Your task to perform on an android device: find which apps use the phone's location Image 0: 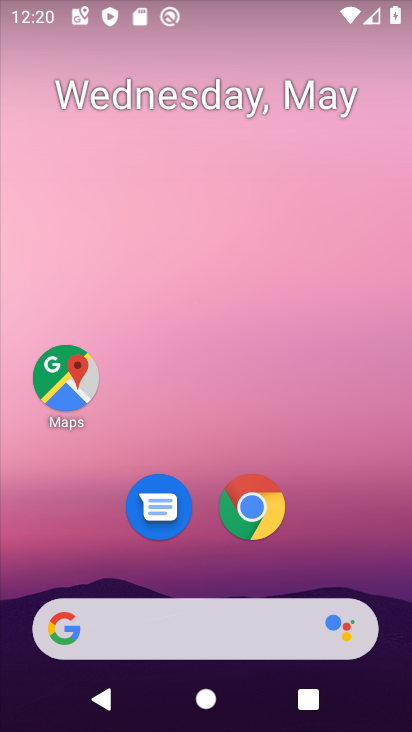
Step 0: drag from (297, 572) to (353, 213)
Your task to perform on an android device: find which apps use the phone's location Image 1: 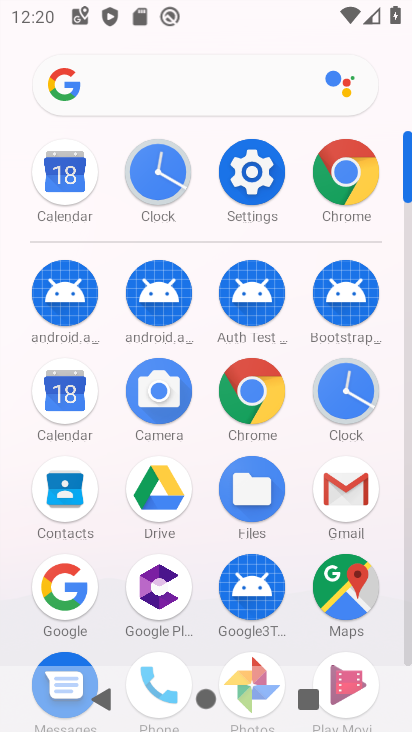
Step 1: click (245, 177)
Your task to perform on an android device: find which apps use the phone's location Image 2: 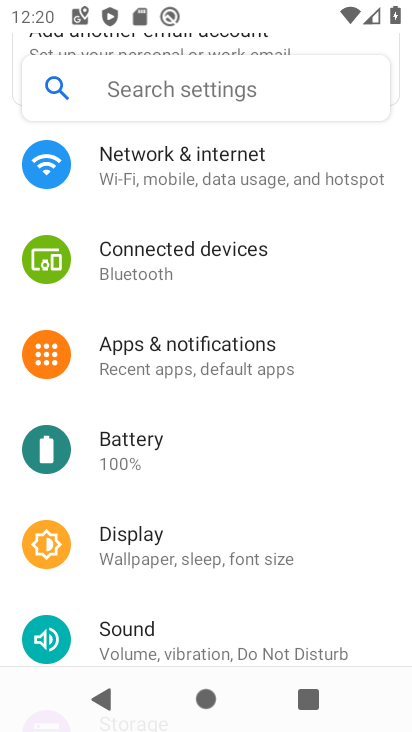
Step 2: drag from (209, 498) to (256, 215)
Your task to perform on an android device: find which apps use the phone's location Image 3: 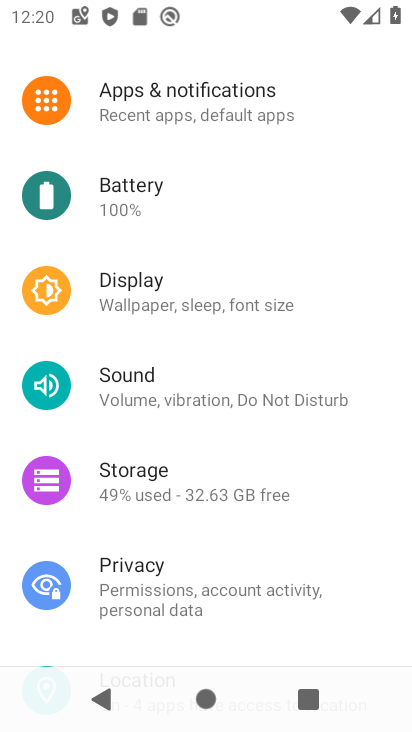
Step 3: drag from (199, 550) to (265, 208)
Your task to perform on an android device: find which apps use the phone's location Image 4: 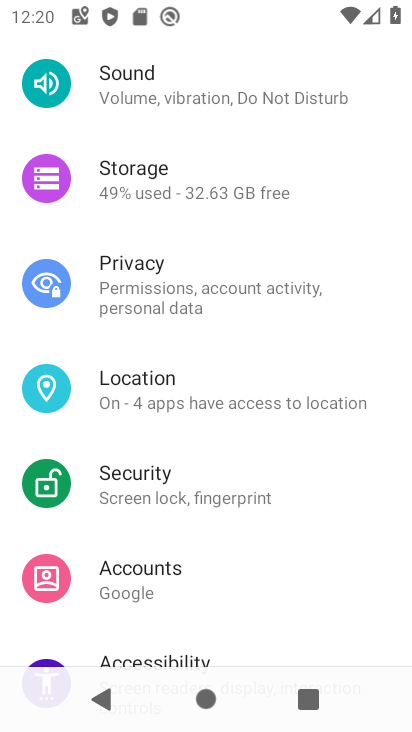
Step 4: click (203, 379)
Your task to perform on an android device: find which apps use the phone's location Image 5: 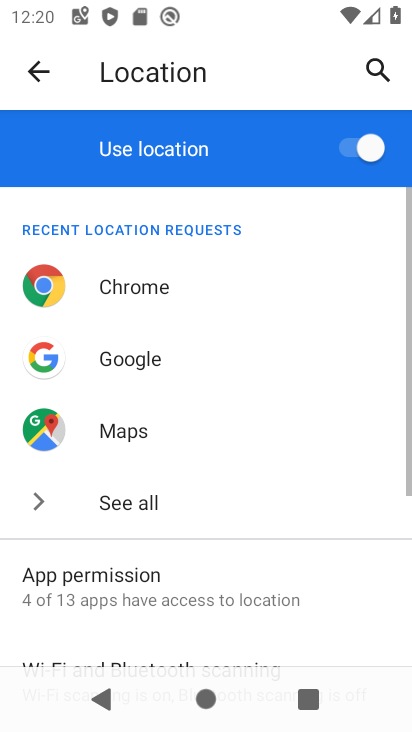
Step 5: task complete